Your task to perform on an android device: delete a single message in the gmail app Image 0: 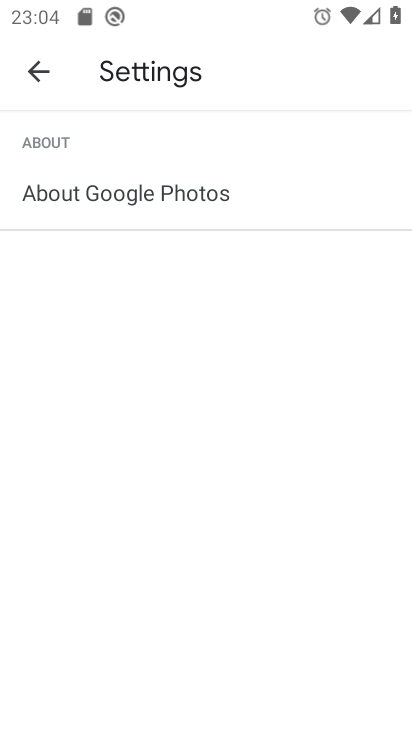
Step 0: press home button
Your task to perform on an android device: delete a single message in the gmail app Image 1: 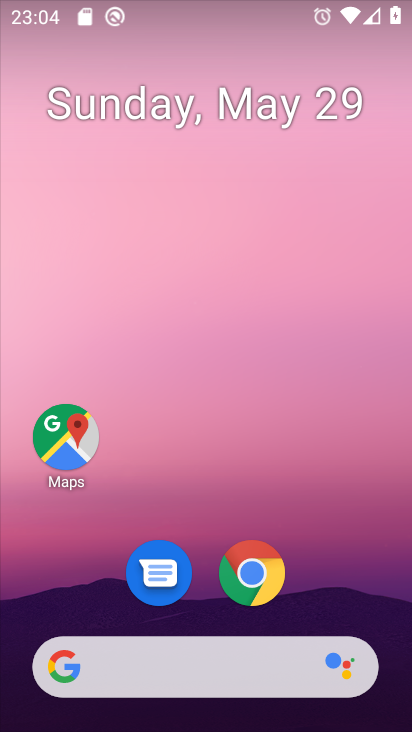
Step 1: drag from (216, 489) to (239, 19)
Your task to perform on an android device: delete a single message in the gmail app Image 2: 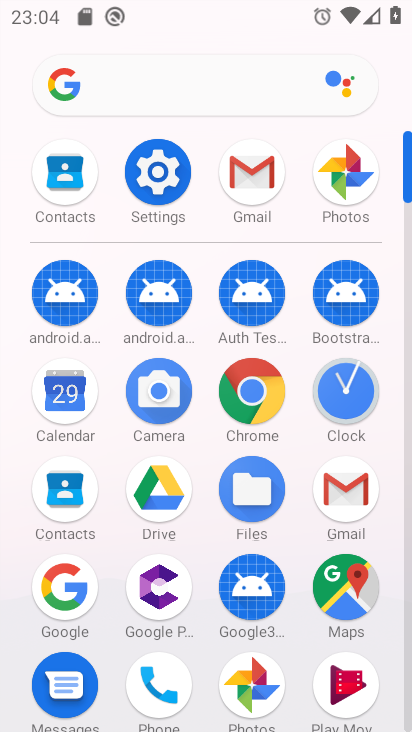
Step 2: click (247, 172)
Your task to perform on an android device: delete a single message in the gmail app Image 3: 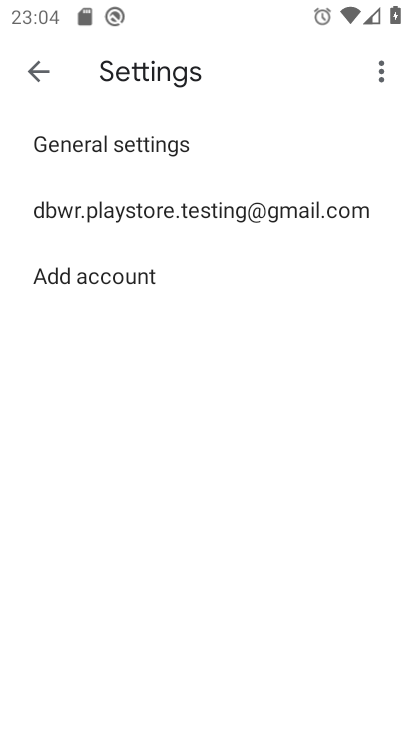
Step 3: click (41, 67)
Your task to perform on an android device: delete a single message in the gmail app Image 4: 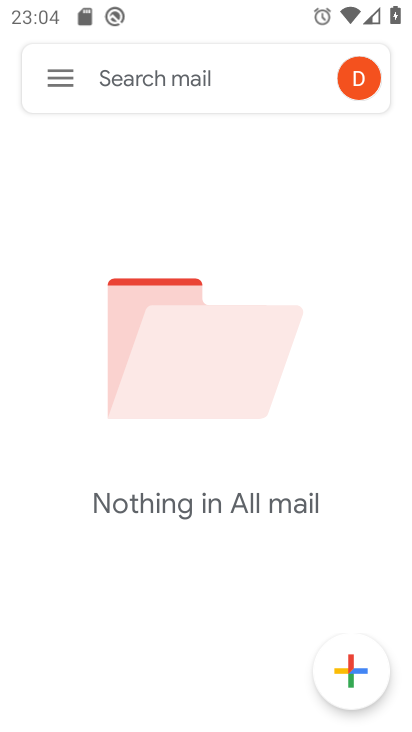
Step 4: task complete